Your task to perform on an android device: Open CNN.com Image 0: 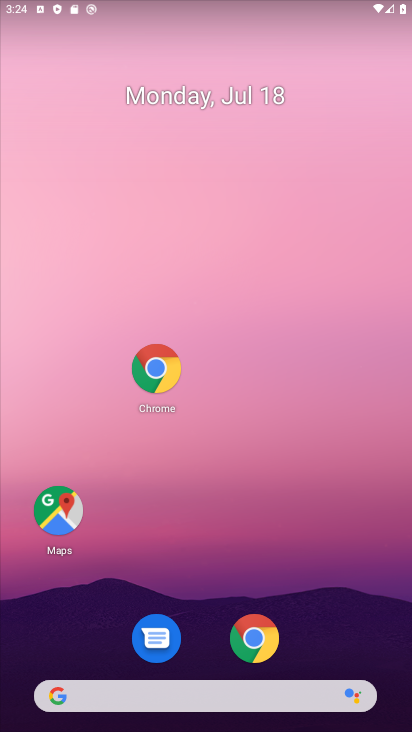
Step 0: click (256, 652)
Your task to perform on an android device: Open CNN.com Image 1: 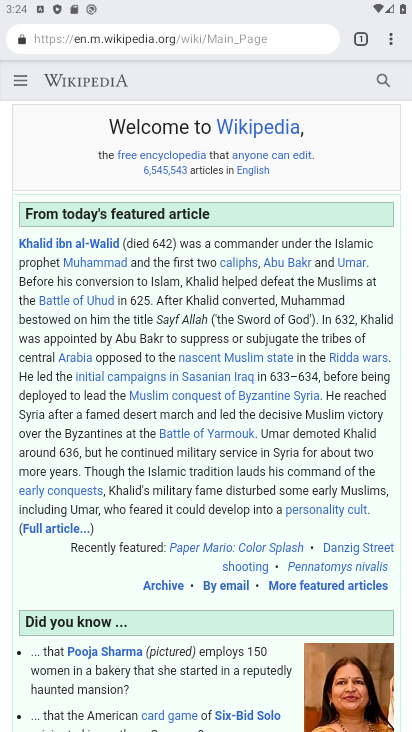
Step 1: click (354, 40)
Your task to perform on an android device: Open CNN.com Image 2: 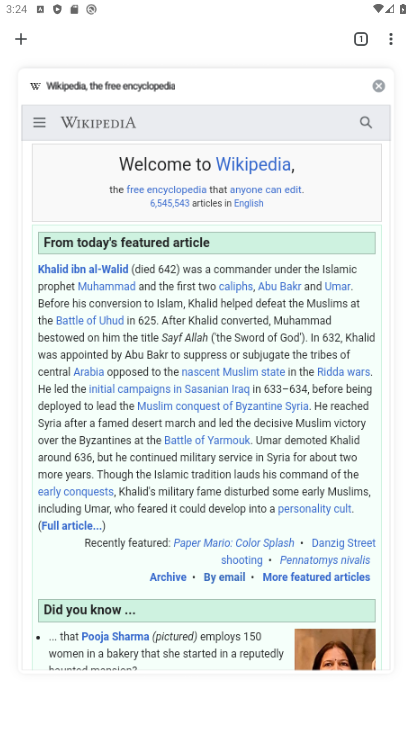
Step 2: click (25, 39)
Your task to perform on an android device: Open CNN.com Image 3: 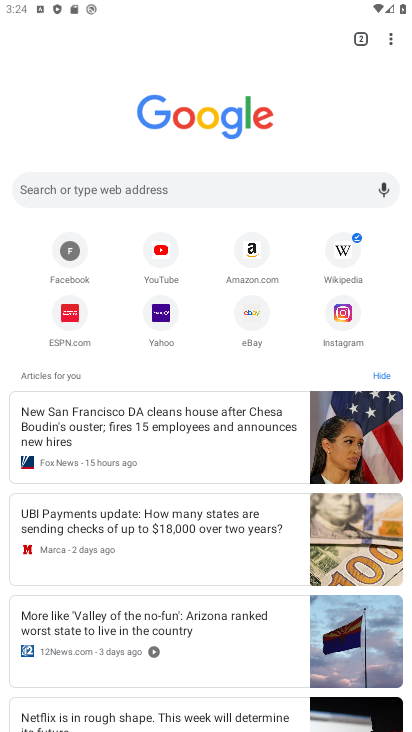
Step 3: click (190, 183)
Your task to perform on an android device: Open CNN.com Image 4: 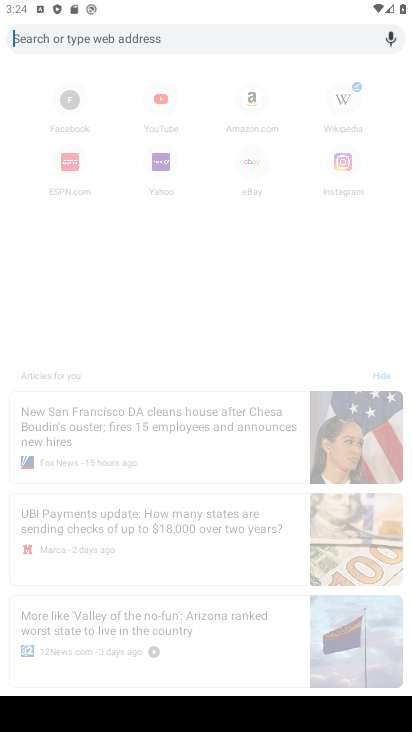
Step 4: type "cnn"
Your task to perform on an android device: Open CNN.com Image 5: 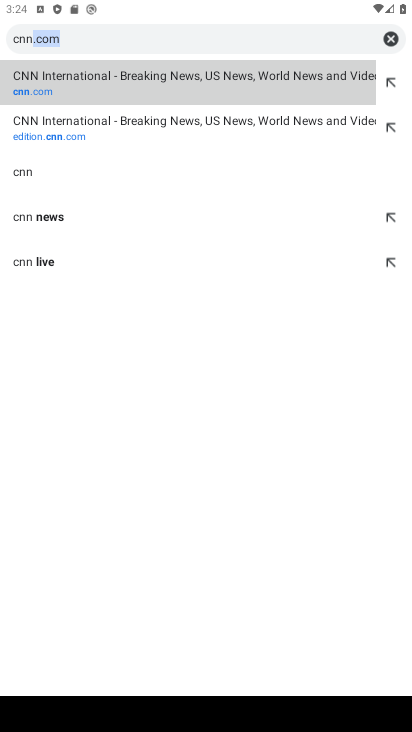
Step 5: click (118, 74)
Your task to perform on an android device: Open CNN.com Image 6: 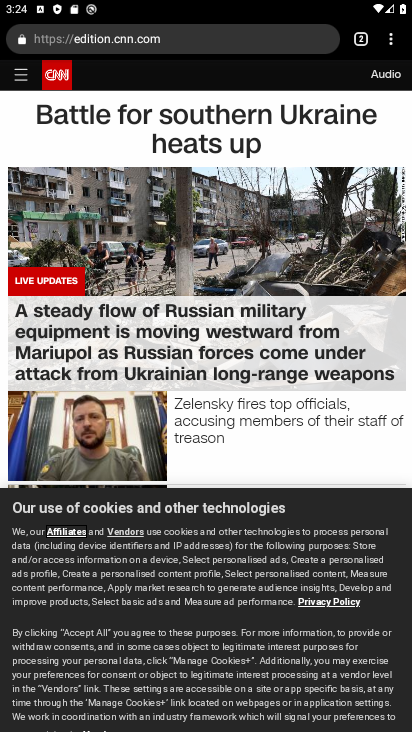
Step 6: task complete